Your task to perform on an android device: View the shopping cart on amazon. Search for razer nari on amazon, select the first entry, and add it to the cart. Image 0: 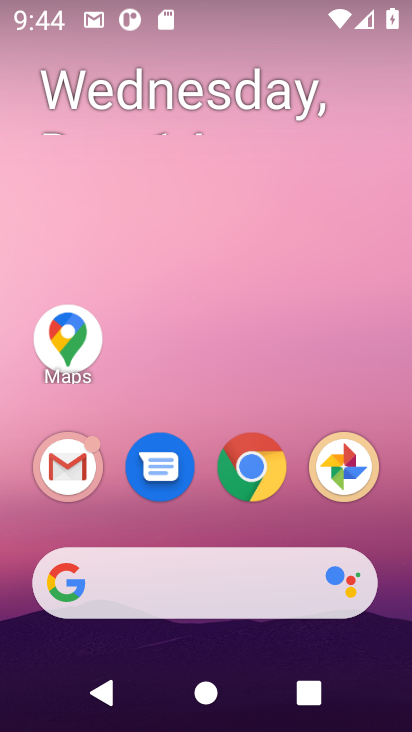
Step 0: press home button
Your task to perform on an android device: View the shopping cart on amazon. Search for razer nari on amazon, select the first entry, and add it to the cart. Image 1: 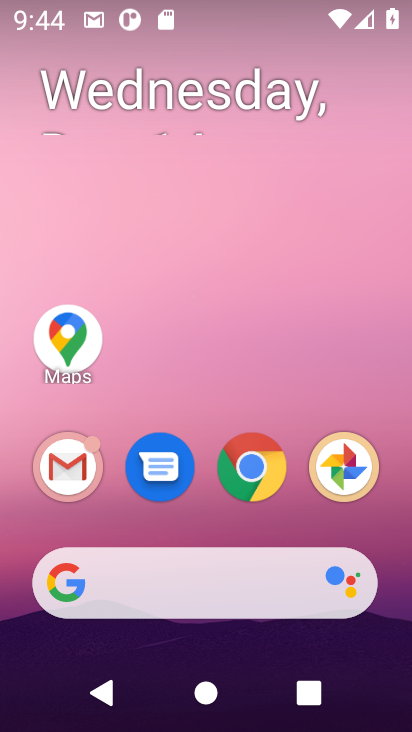
Step 1: click (263, 479)
Your task to perform on an android device: View the shopping cart on amazon. Search for razer nari on amazon, select the first entry, and add it to the cart. Image 2: 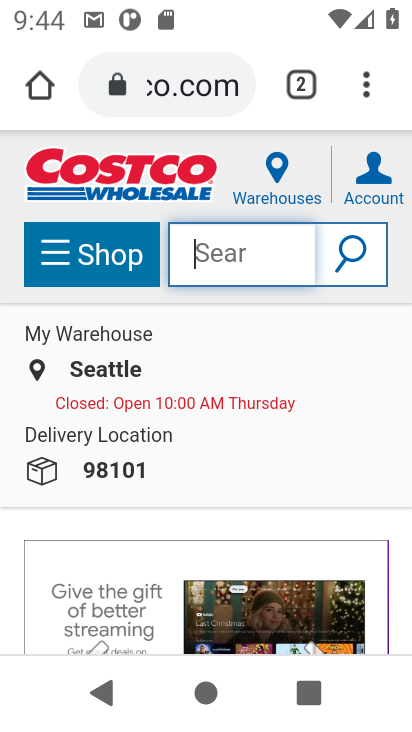
Step 2: task complete